Your task to perform on an android device: Open calendar and show me the second week of next month Image 0: 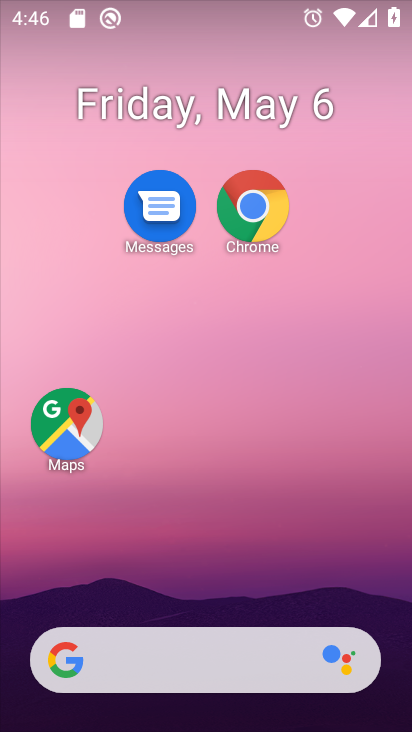
Step 0: drag from (179, 437) to (185, 299)
Your task to perform on an android device: Open calendar and show me the second week of next month Image 1: 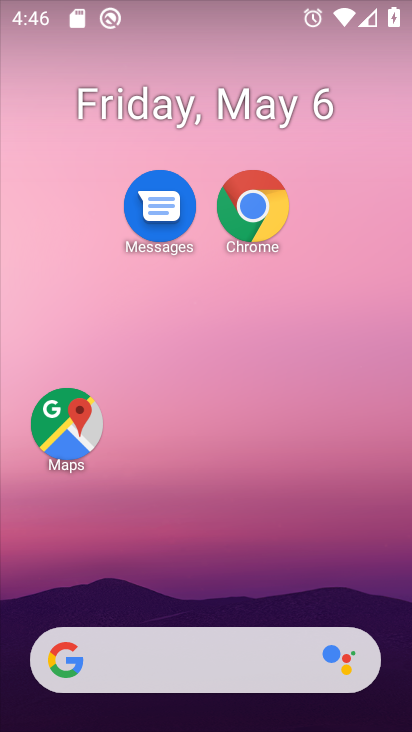
Step 1: drag from (213, 616) to (215, 173)
Your task to perform on an android device: Open calendar and show me the second week of next month Image 2: 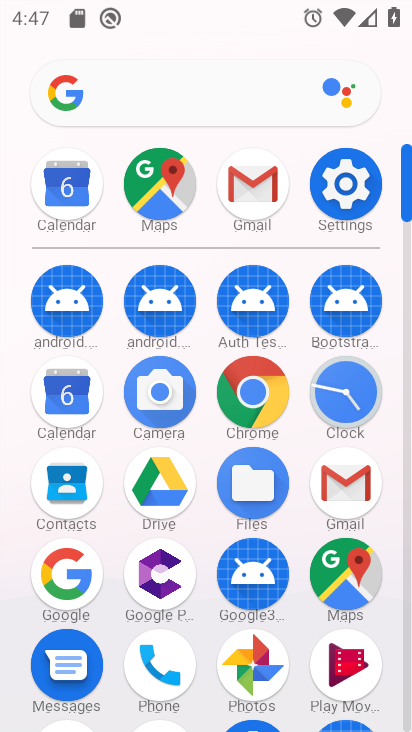
Step 2: click (42, 383)
Your task to perform on an android device: Open calendar and show me the second week of next month Image 3: 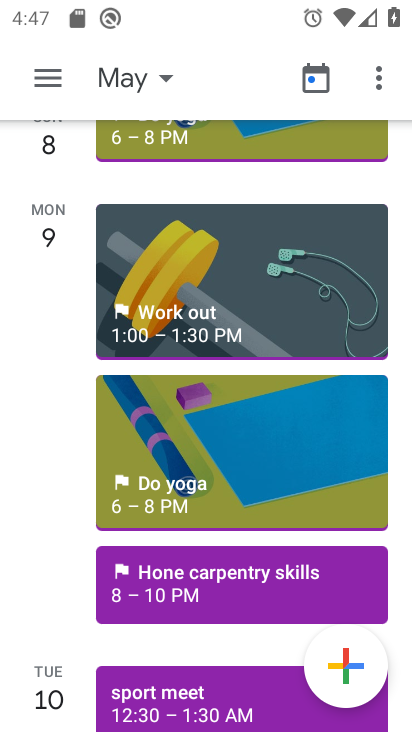
Step 3: click (155, 76)
Your task to perform on an android device: Open calendar and show me the second week of next month Image 4: 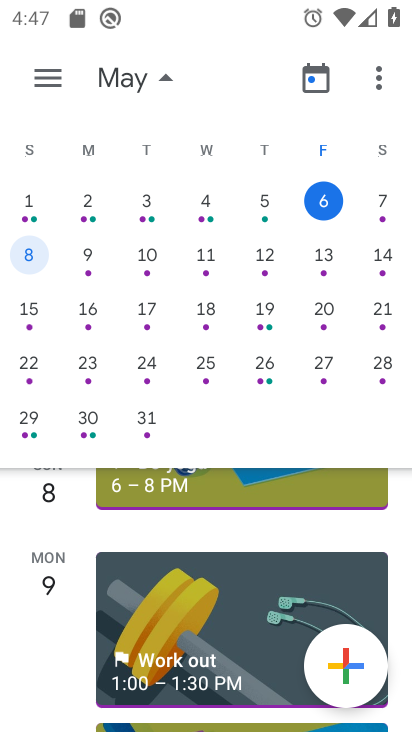
Step 4: drag from (390, 382) to (21, 336)
Your task to perform on an android device: Open calendar and show me the second week of next month Image 5: 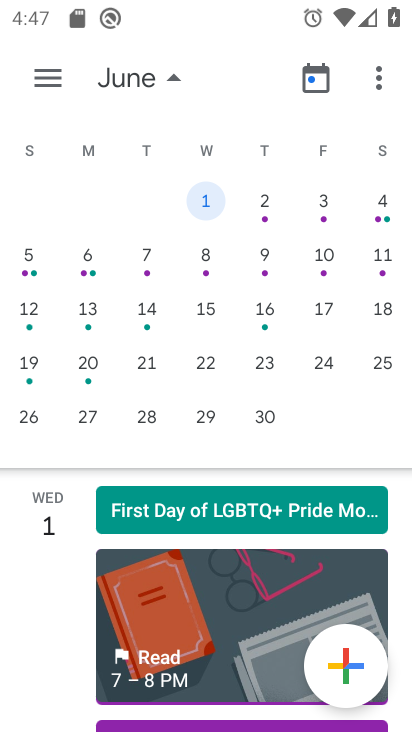
Step 5: click (325, 256)
Your task to perform on an android device: Open calendar and show me the second week of next month Image 6: 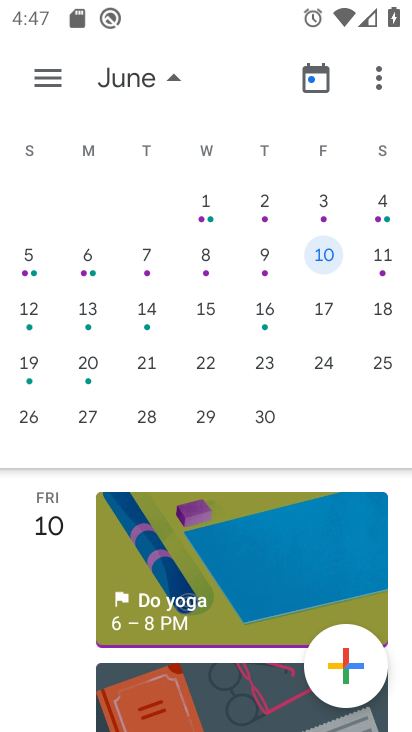
Step 6: click (22, 308)
Your task to perform on an android device: Open calendar and show me the second week of next month Image 7: 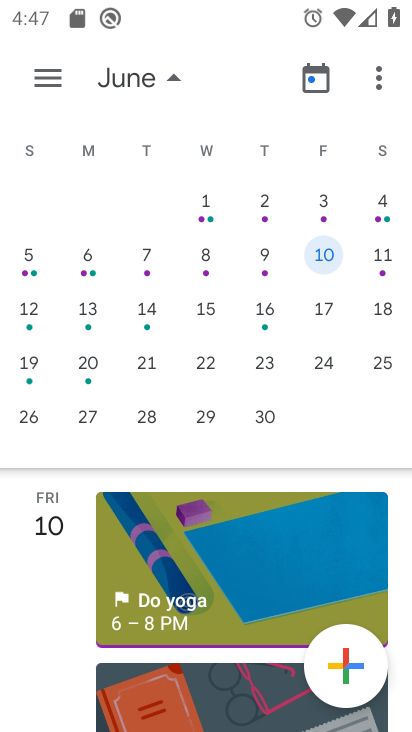
Step 7: click (36, 259)
Your task to perform on an android device: Open calendar and show me the second week of next month Image 8: 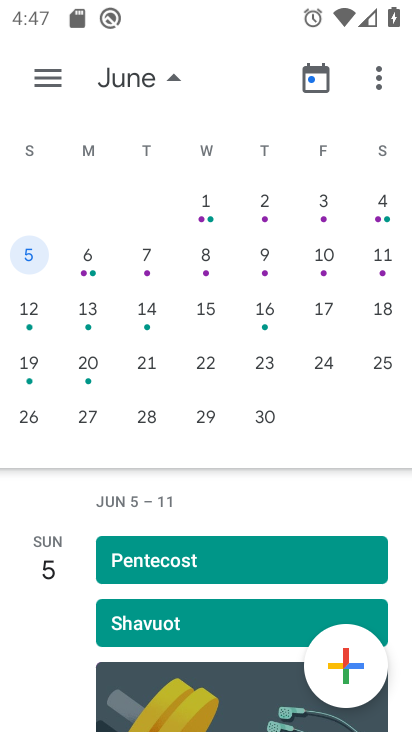
Step 8: task complete